Your task to perform on an android device: See recent photos Image 0: 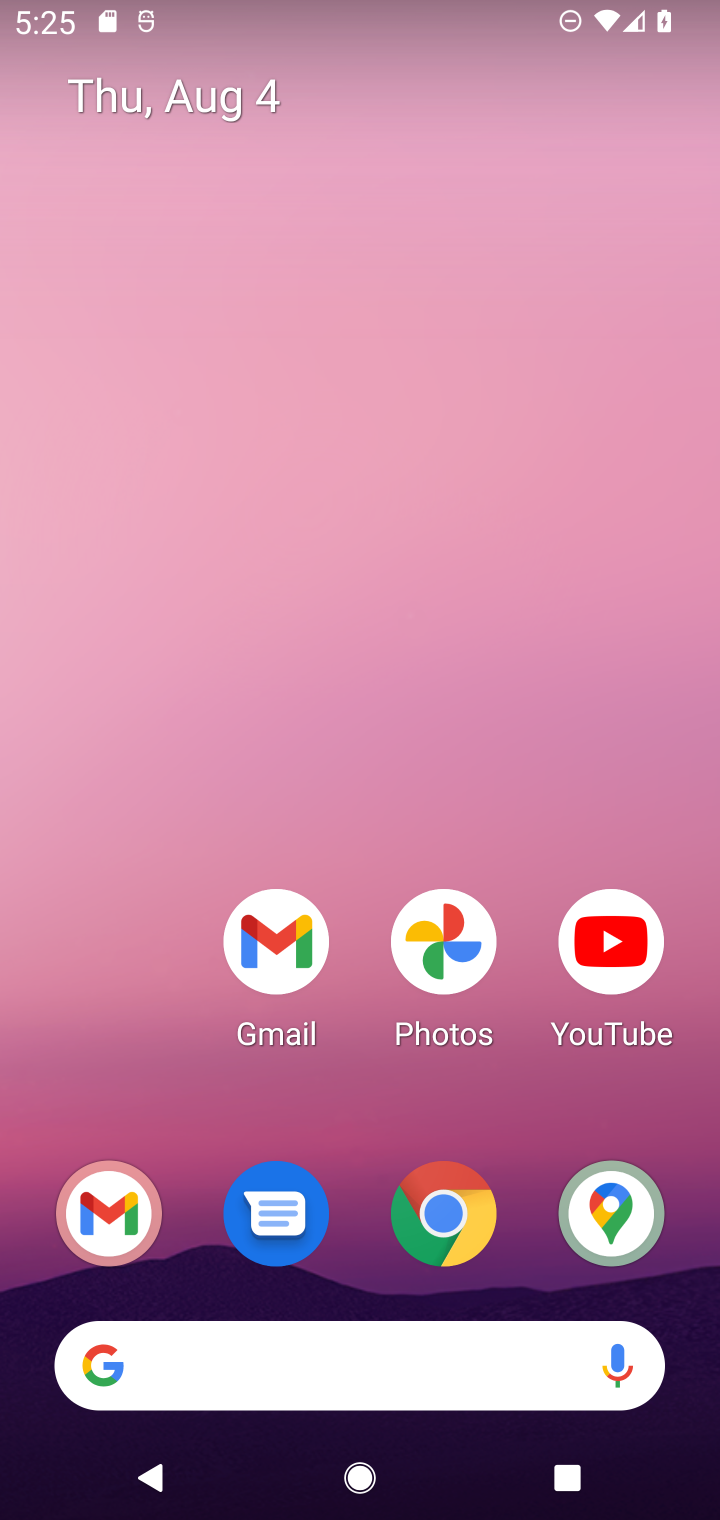
Step 0: press home button
Your task to perform on an android device: See recent photos Image 1: 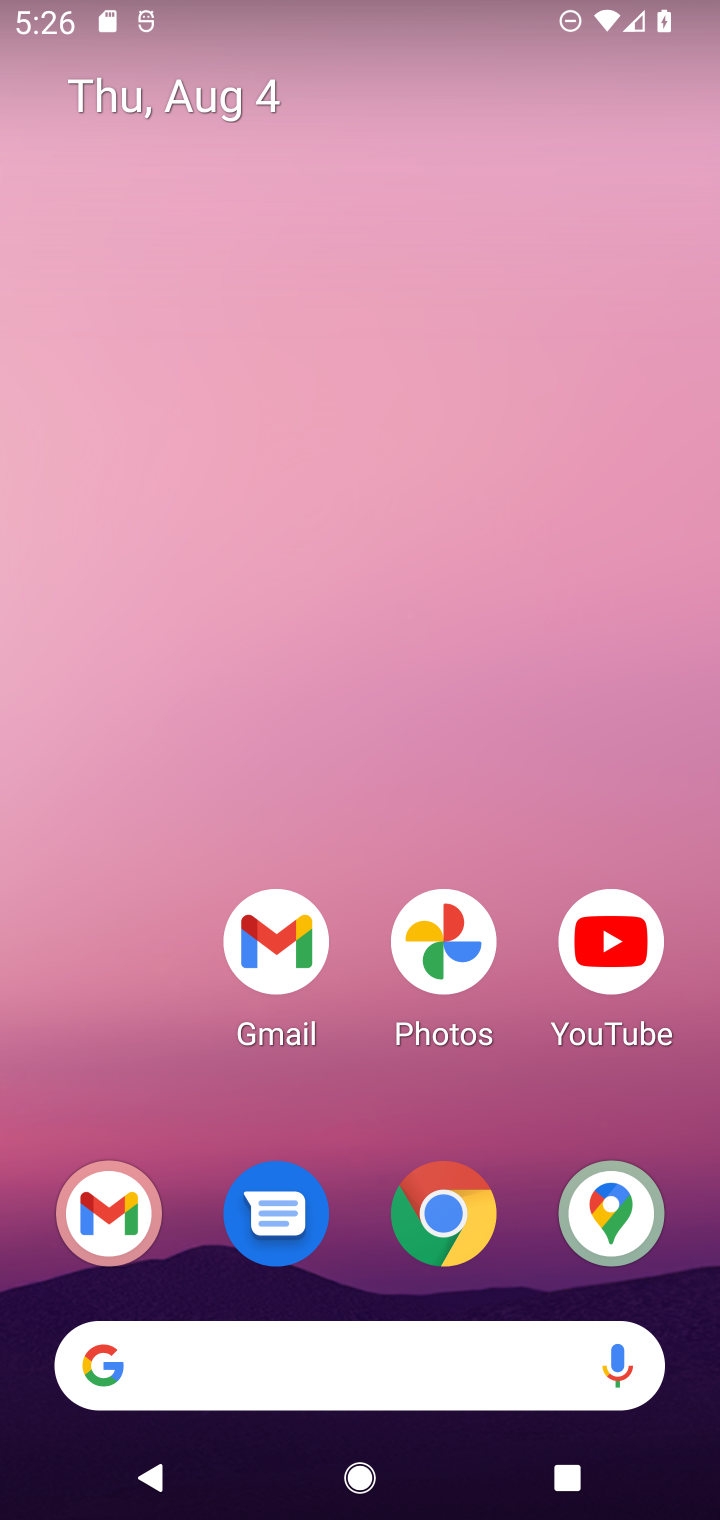
Step 1: drag from (178, 1162) to (181, 499)
Your task to perform on an android device: See recent photos Image 2: 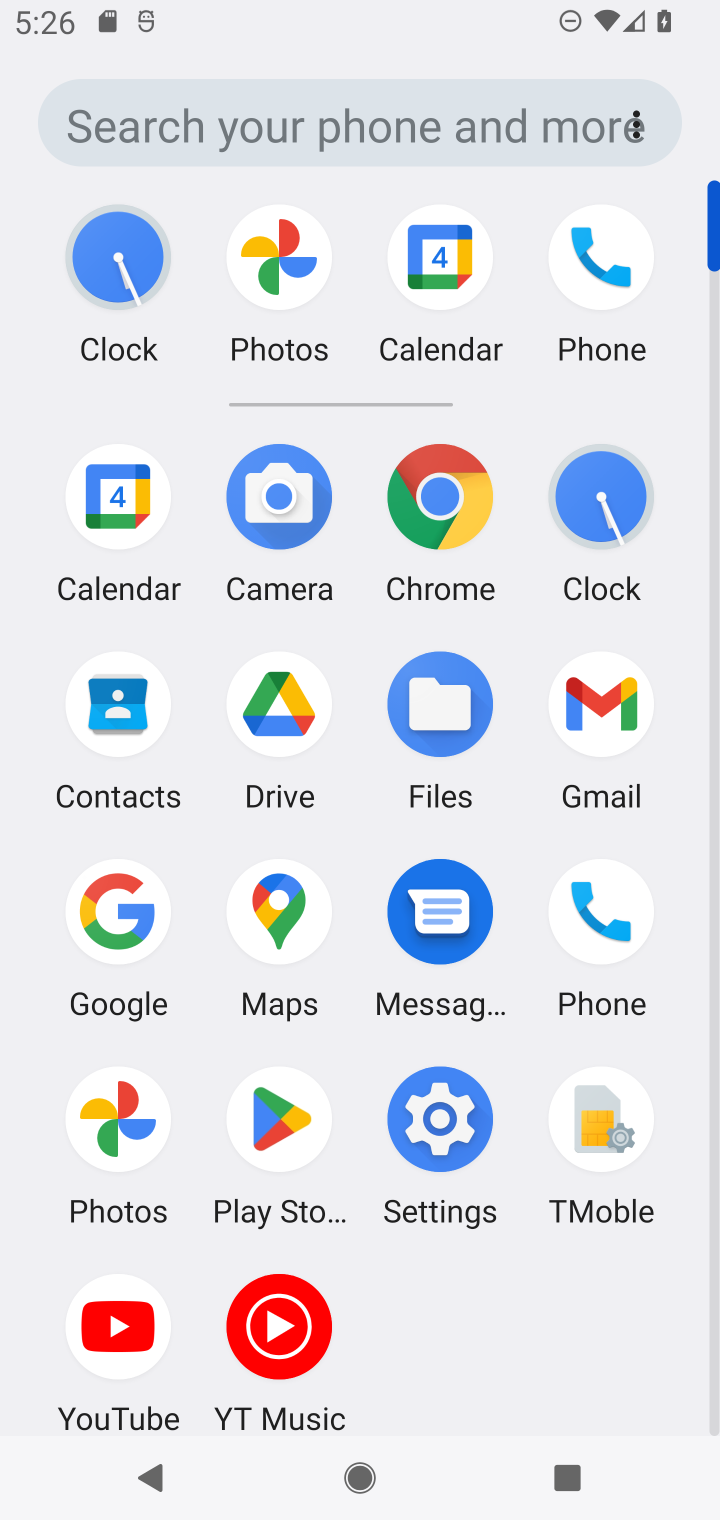
Step 2: click (122, 1122)
Your task to perform on an android device: See recent photos Image 3: 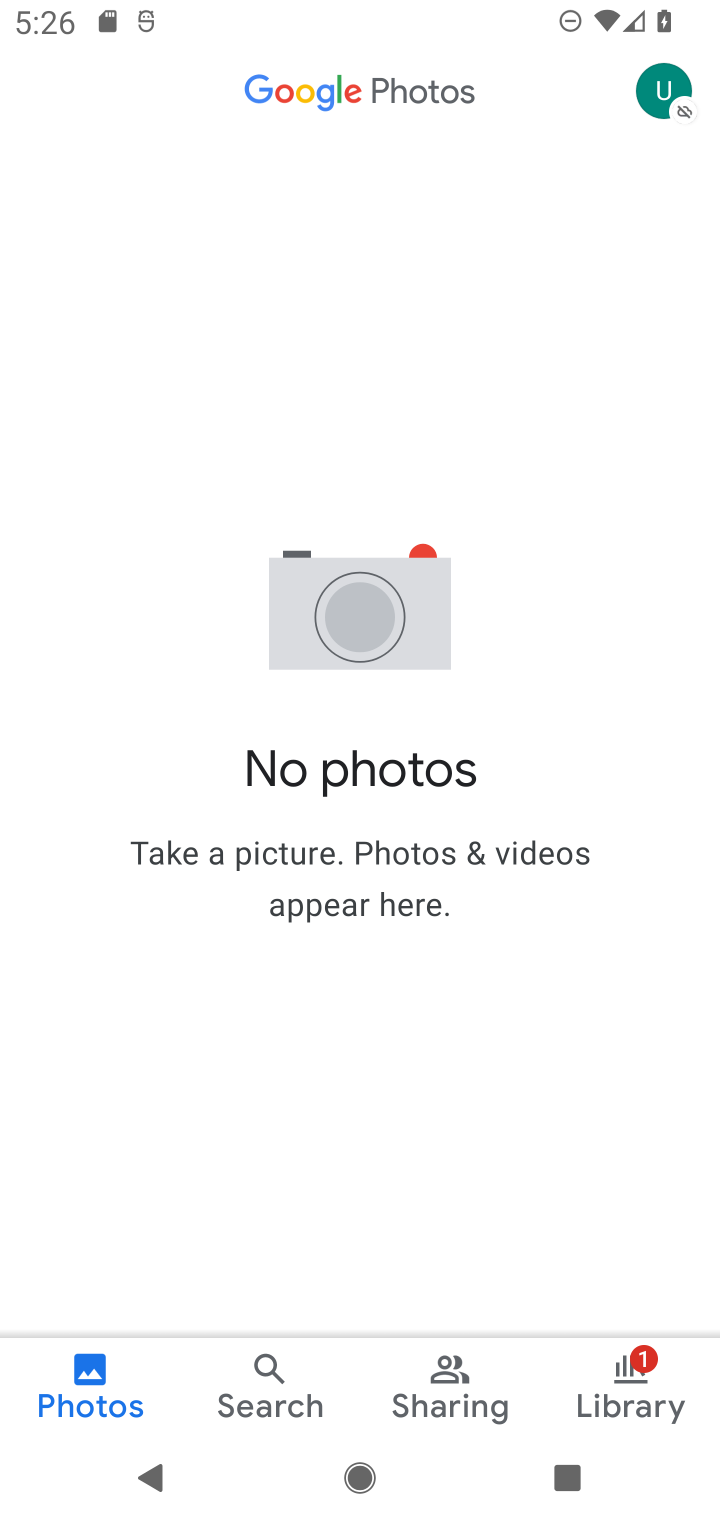
Step 3: task complete